Your task to perform on an android device: Toggle the flashlight Image 0: 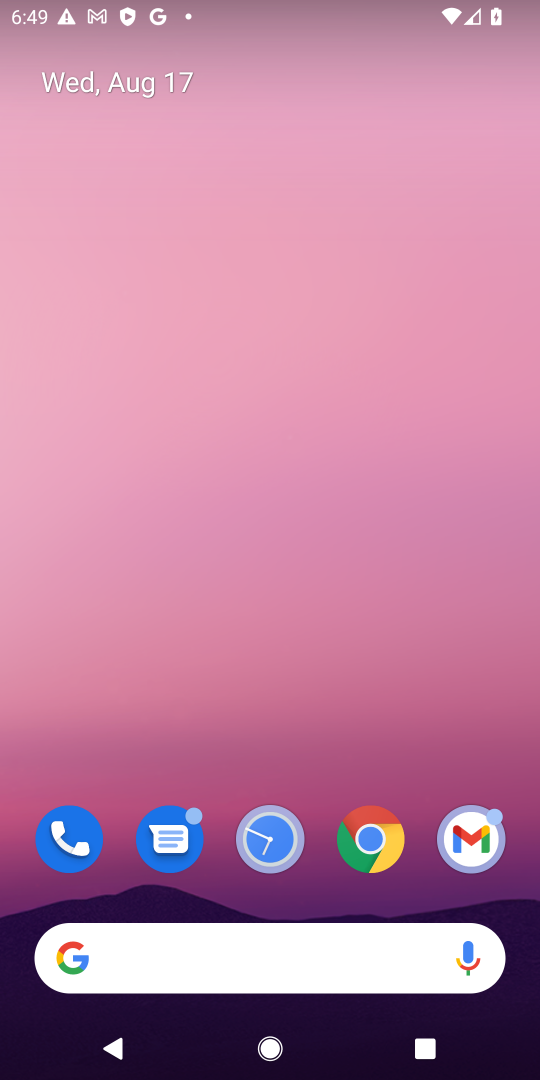
Step 0: drag from (311, 901) to (403, 61)
Your task to perform on an android device: Toggle the flashlight Image 1: 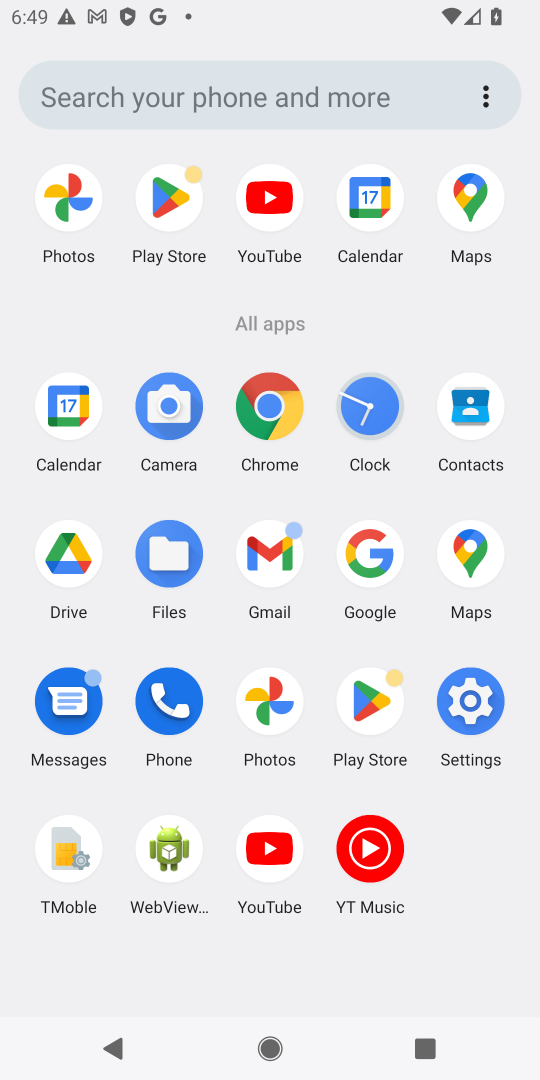
Step 1: click (447, 665)
Your task to perform on an android device: Toggle the flashlight Image 2: 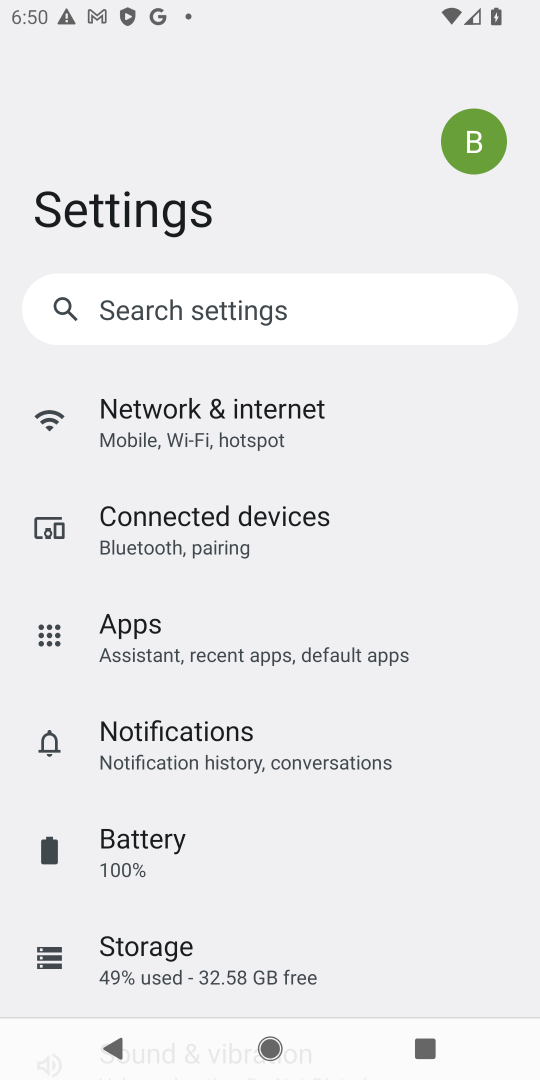
Step 2: drag from (278, 4) to (213, 1058)
Your task to perform on an android device: Toggle the flashlight Image 3: 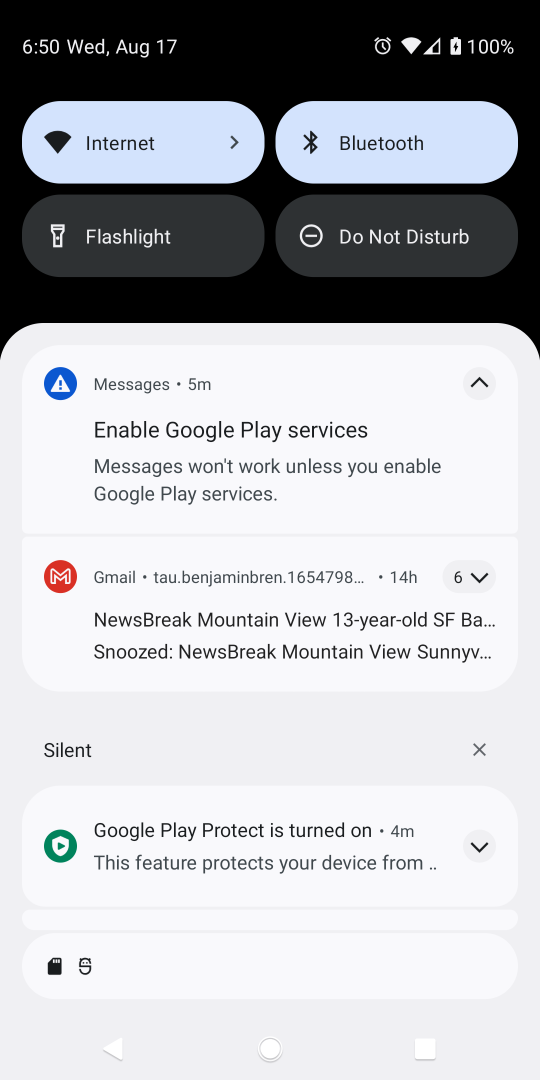
Step 3: click (90, 233)
Your task to perform on an android device: Toggle the flashlight Image 4: 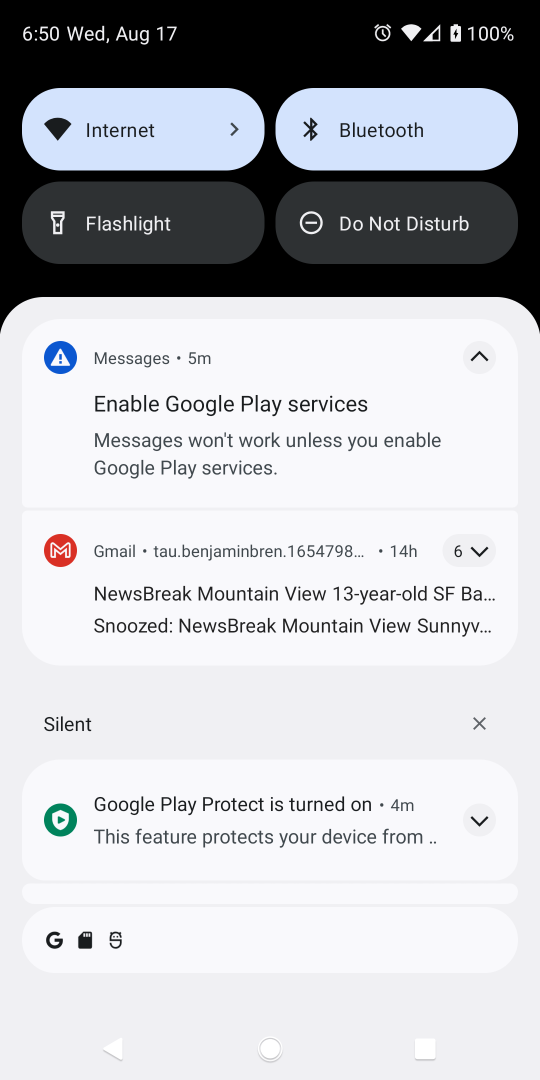
Step 4: click (90, 233)
Your task to perform on an android device: Toggle the flashlight Image 5: 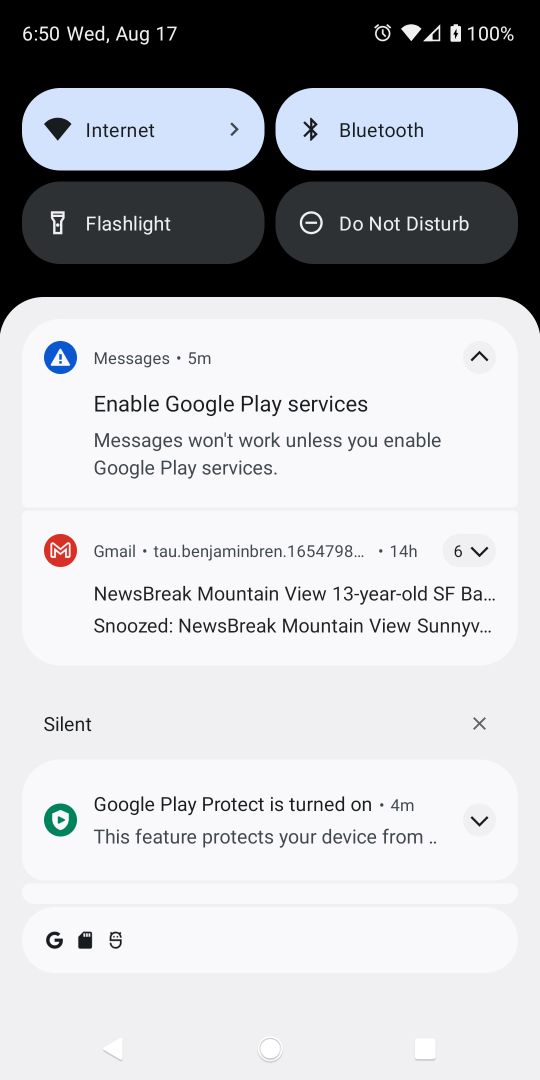
Step 5: task complete